Your task to perform on an android device: Open Youtube and go to the subscriptions tab Image 0: 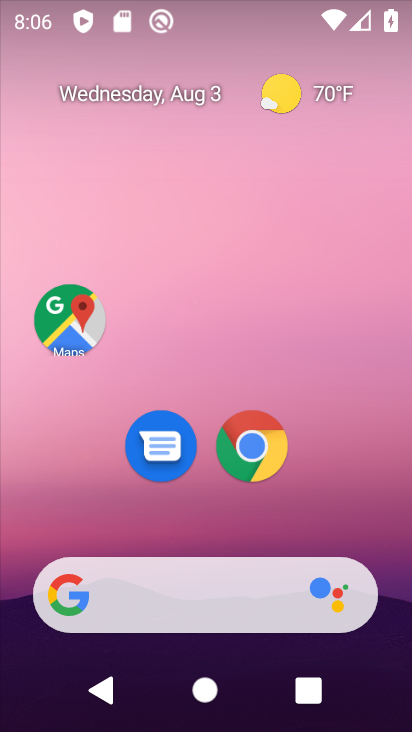
Step 0: drag from (388, 697) to (340, 80)
Your task to perform on an android device: Open Youtube and go to the subscriptions tab Image 1: 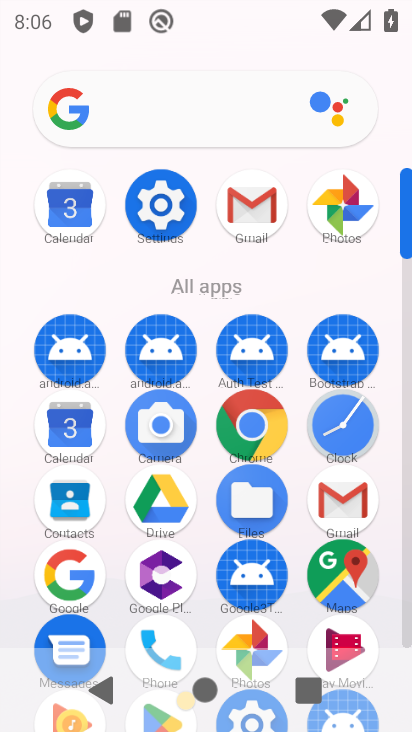
Step 1: drag from (295, 634) to (270, 252)
Your task to perform on an android device: Open Youtube and go to the subscriptions tab Image 2: 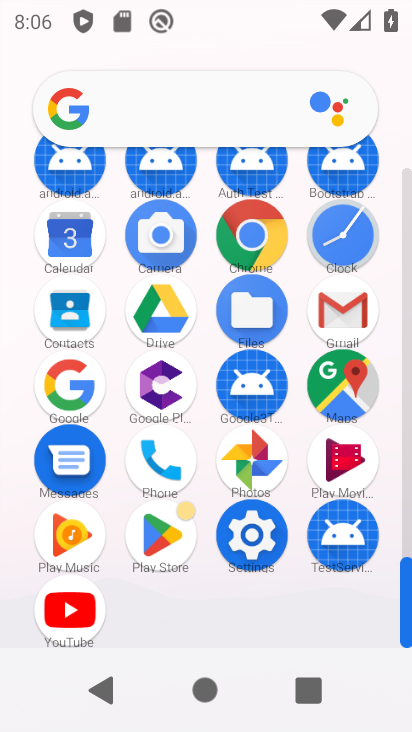
Step 2: click (69, 610)
Your task to perform on an android device: Open Youtube and go to the subscriptions tab Image 3: 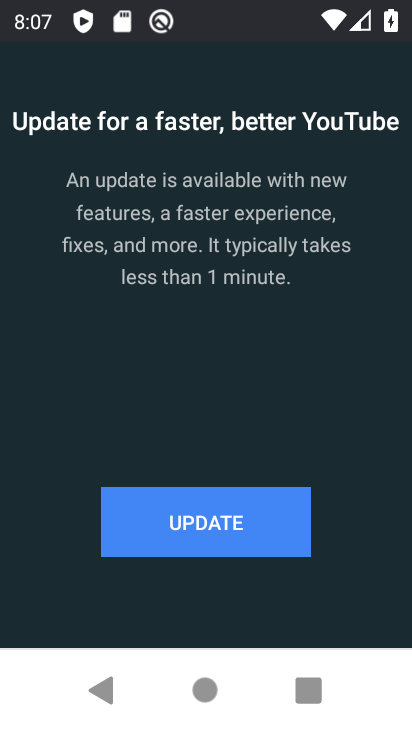
Step 3: click (227, 526)
Your task to perform on an android device: Open Youtube and go to the subscriptions tab Image 4: 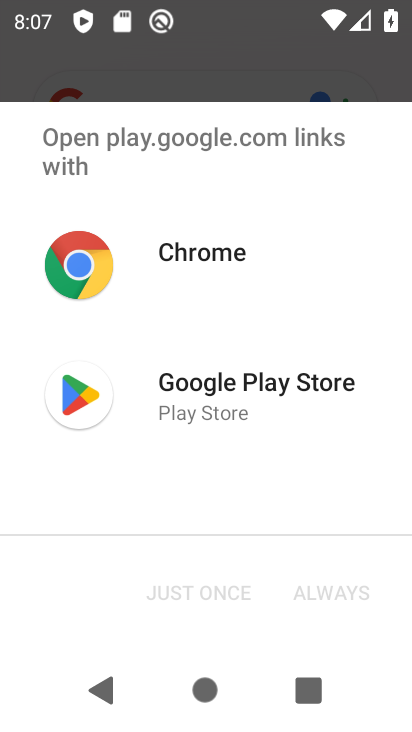
Step 4: click (283, 369)
Your task to perform on an android device: Open Youtube and go to the subscriptions tab Image 5: 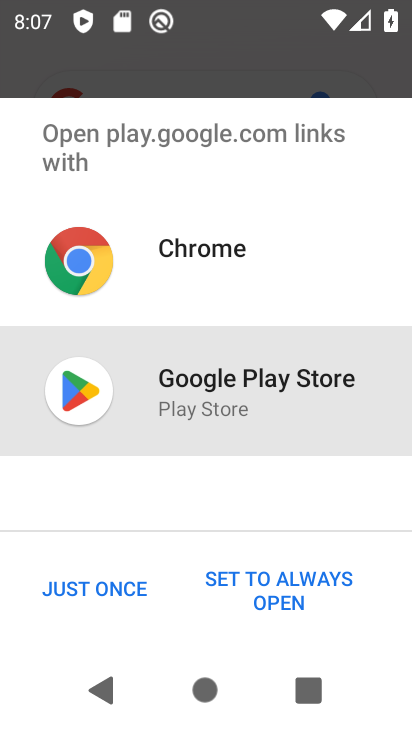
Step 5: click (119, 585)
Your task to perform on an android device: Open Youtube and go to the subscriptions tab Image 6: 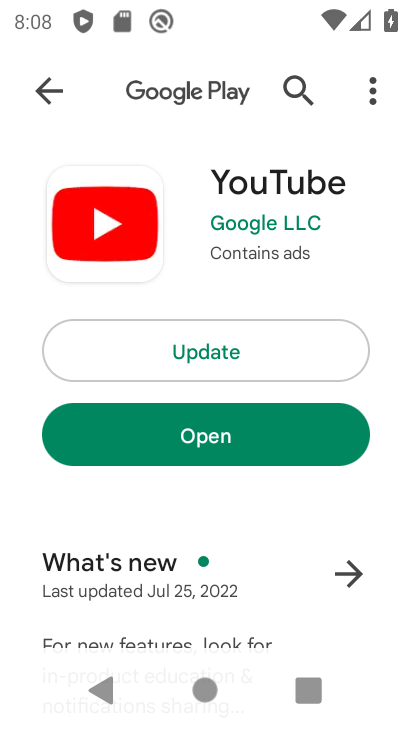
Step 6: click (223, 436)
Your task to perform on an android device: Open Youtube and go to the subscriptions tab Image 7: 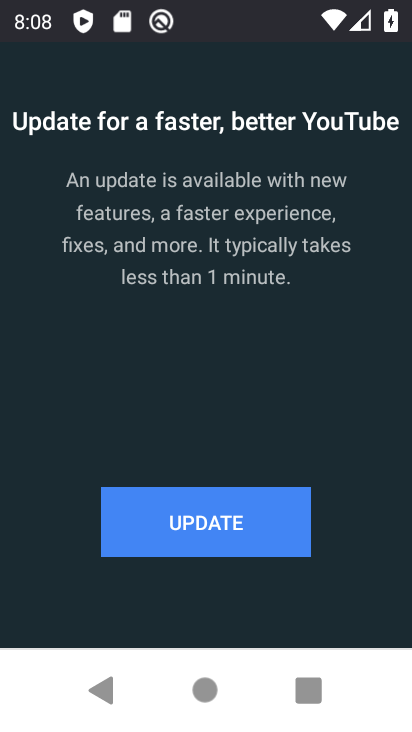
Step 7: click (219, 514)
Your task to perform on an android device: Open Youtube and go to the subscriptions tab Image 8: 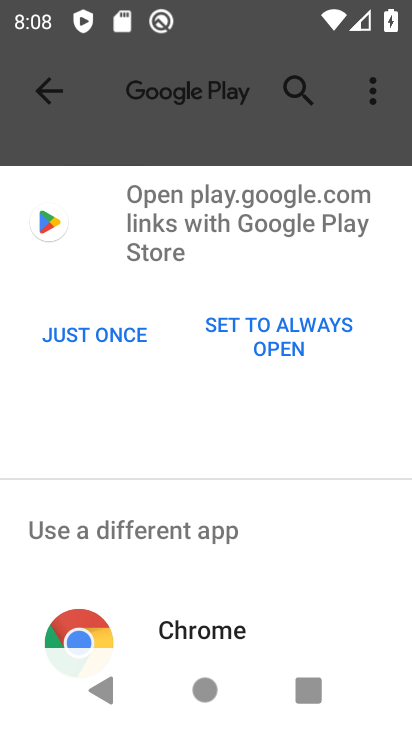
Step 8: click (90, 322)
Your task to perform on an android device: Open Youtube and go to the subscriptions tab Image 9: 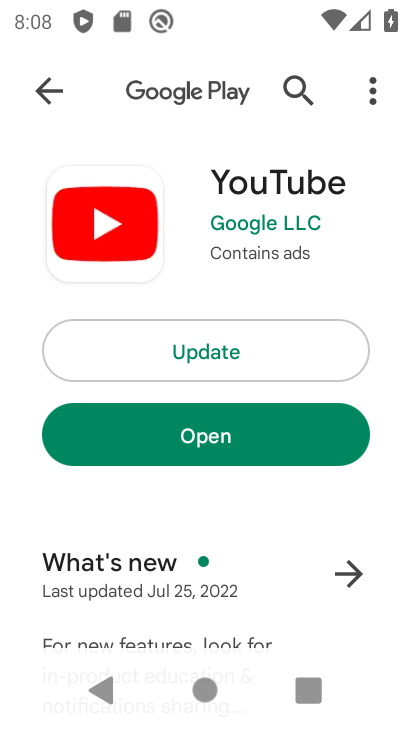
Step 9: click (140, 346)
Your task to perform on an android device: Open Youtube and go to the subscriptions tab Image 10: 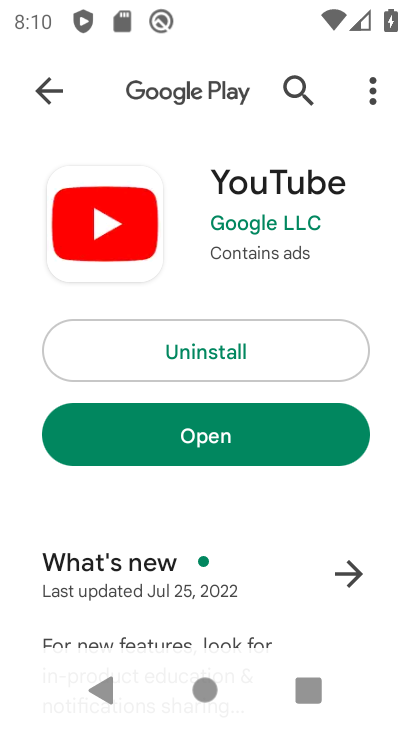
Step 10: click (252, 434)
Your task to perform on an android device: Open Youtube and go to the subscriptions tab Image 11: 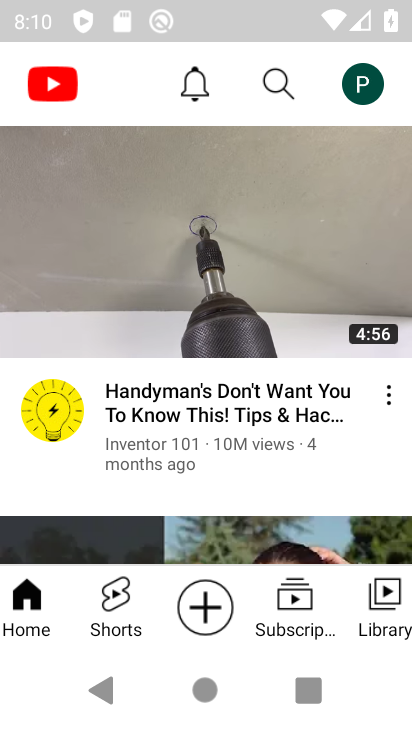
Step 11: click (297, 605)
Your task to perform on an android device: Open Youtube and go to the subscriptions tab Image 12: 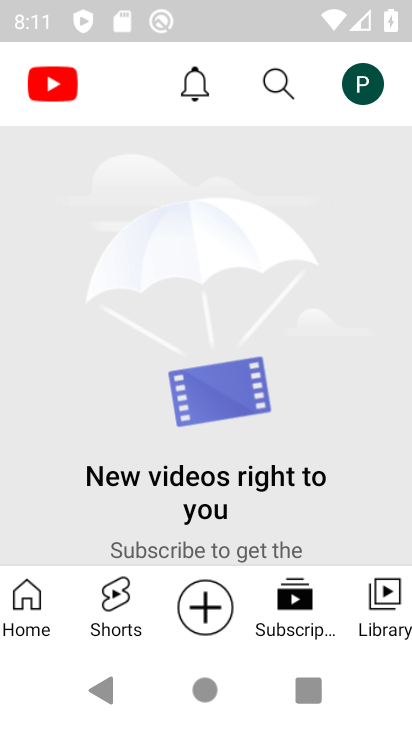
Step 12: task complete